Your task to perform on an android device: Open Maps and search for coffee Image 0: 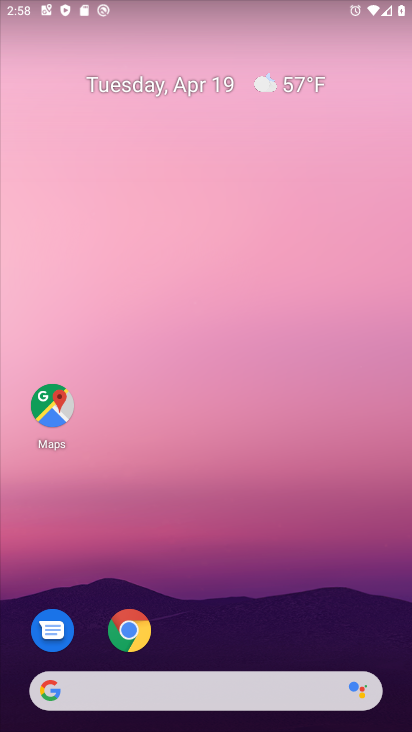
Step 0: click (49, 415)
Your task to perform on an android device: Open Maps and search for coffee Image 1: 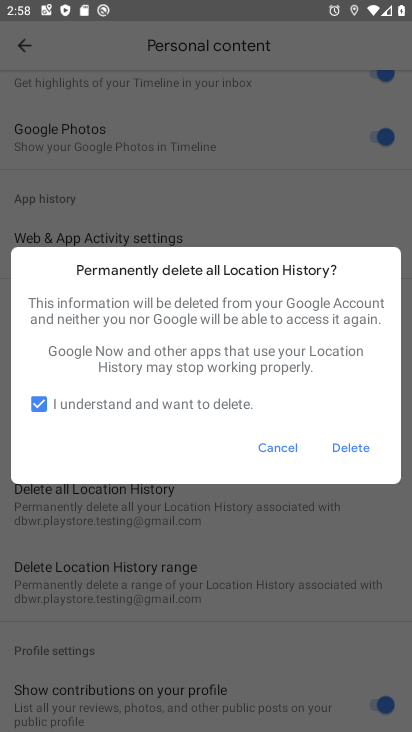
Step 1: click (201, 176)
Your task to perform on an android device: Open Maps and search for coffee Image 2: 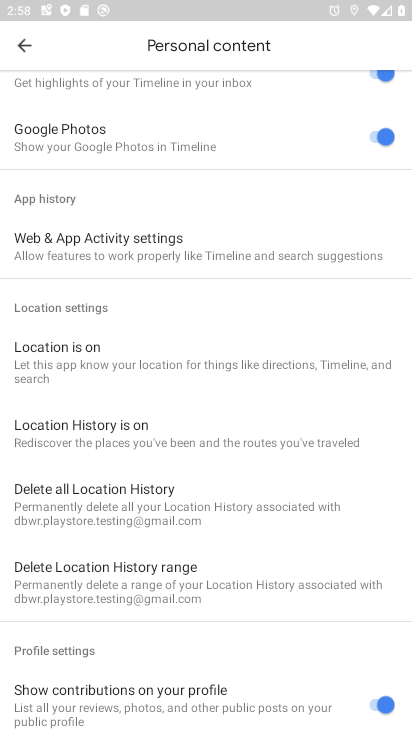
Step 2: click (22, 47)
Your task to perform on an android device: Open Maps and search for coffee Image 3: 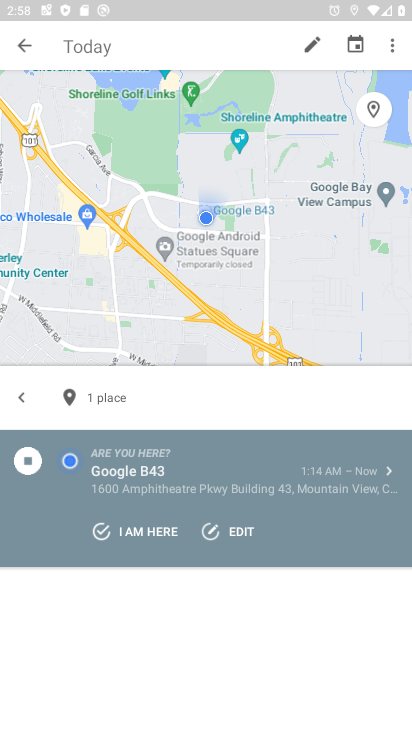
Step 3: click (26, 47)
Your task to perform on an android device: Open Maps and search for coffee Image 4: 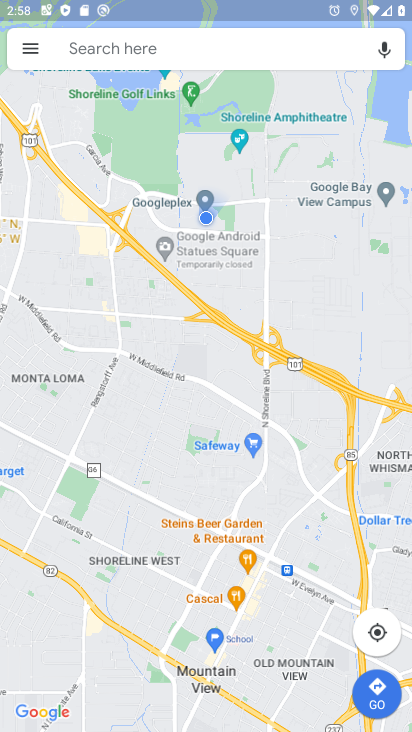
Step 4: click (142, 45)
Your task to perform on an android device: Open Maps and search for coffee Image 5: 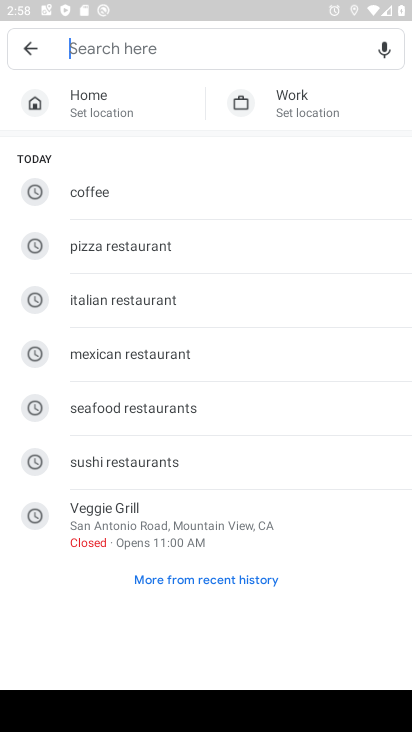
Step 5: click (94, 191)
Your task to perform on an android device: Open Maps and search for coffee Image 6: 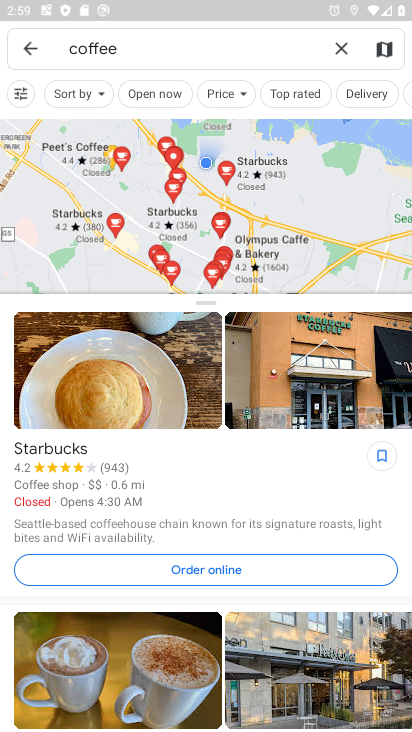
Step 6: task complete